Your task to perform on an android device: toggle javascript in the chrome app Image 0: 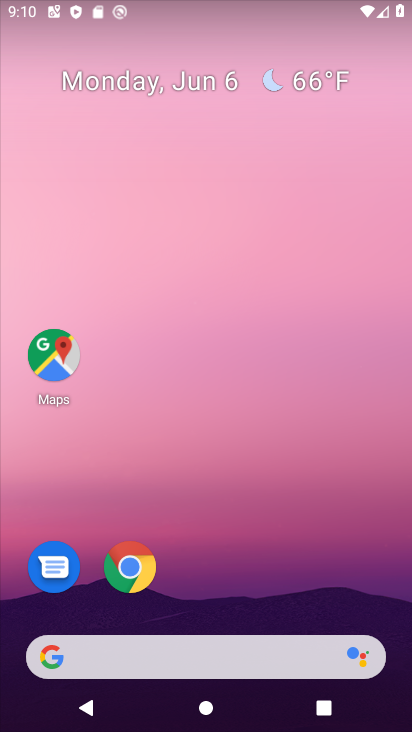
Step 0: click (123, 566)
Your task to perform on an android device: toggle javascript in the chrome app Image 1: 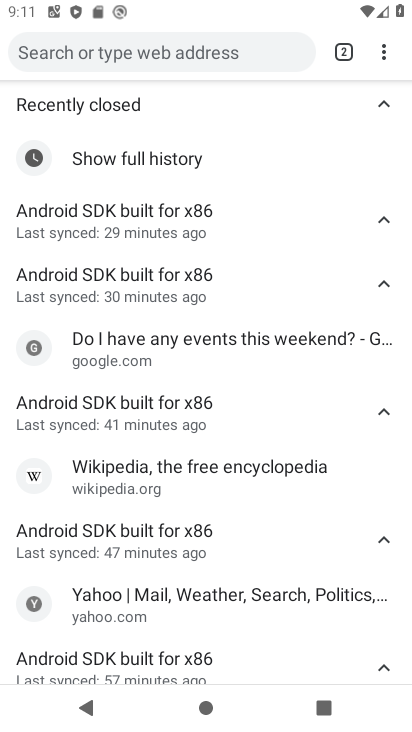
Step 1: click (389, 45)
Your task to perform on an android device: toggle javascript in the chrome app Image 2: 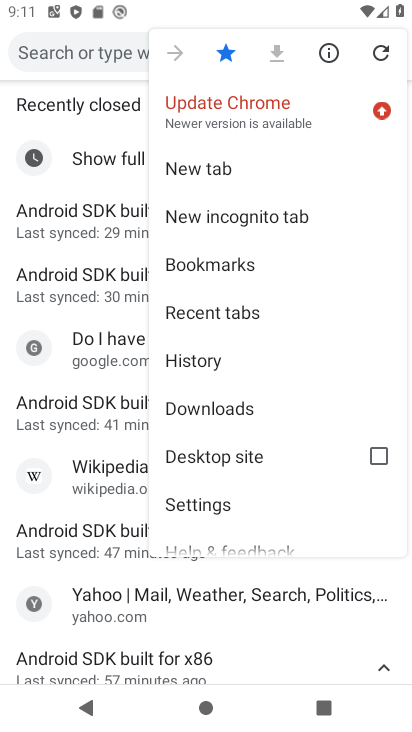
Step 2: click (216, 499)
Your task to perform on an android device: toggle javascript in the chrome app Image 3: 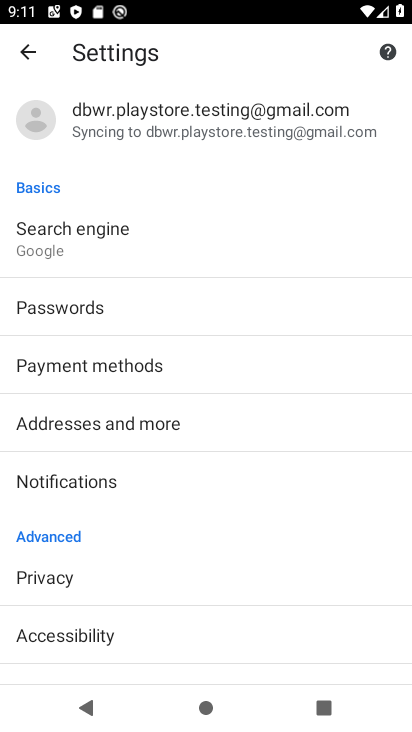
Step 3: drag from (96, 586) to (159, 184)
Your task to perform on an android device: toggle javascript in the chrome app Image 4: 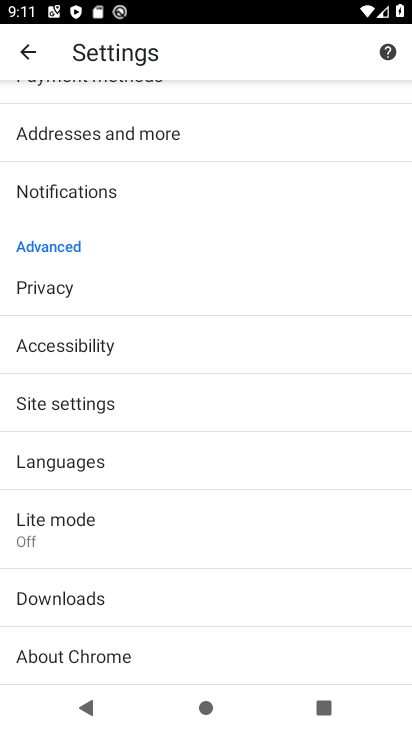
Step 4: click (83, 401)
Your task to perform on an android device: toggle javascript in the chrome app Image 5: 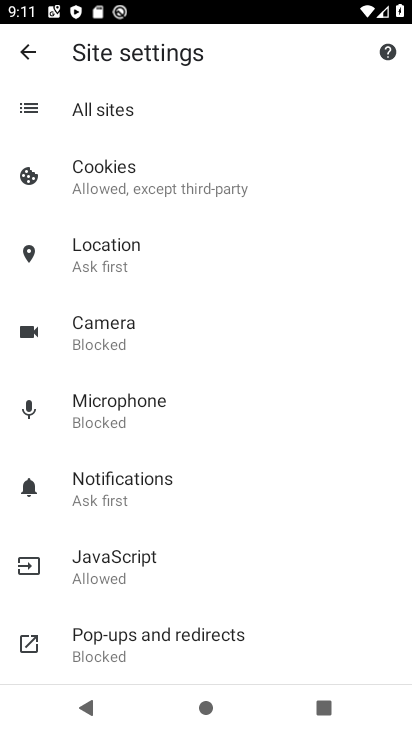
Step 5: click (104, 577)
Your task to perform on an android device: toggle javascript in the chrome app Image 6: 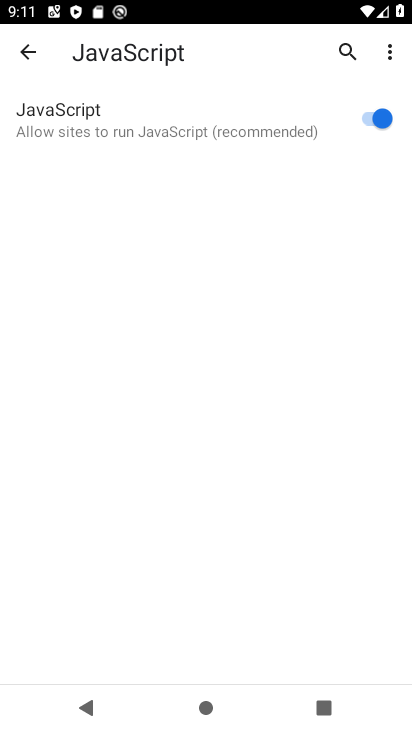
Step 6: click (373, 114)
Your task to perform on an android device: toggle javascript in the chrome app Image 7: 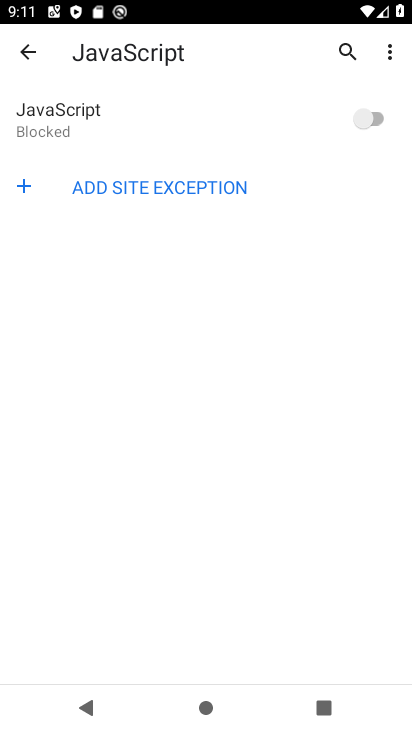
Step 7: task complete